Your task to perform on an android device: see sites visited before in the chrome app Image 0: 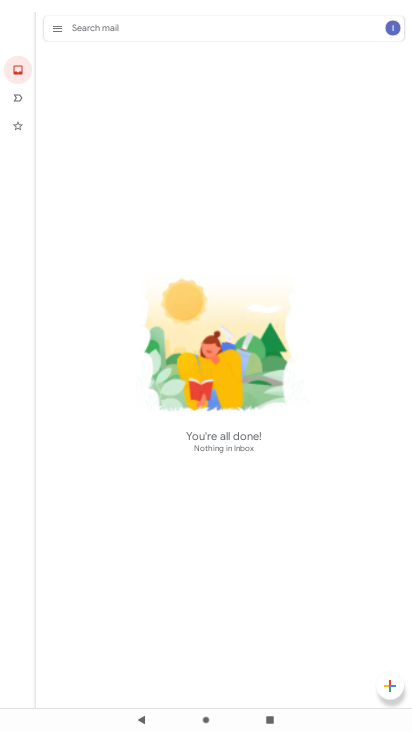
Step 0: press home button
Your task to perform on an android device: see sites visited before in the chrome app Image 1: 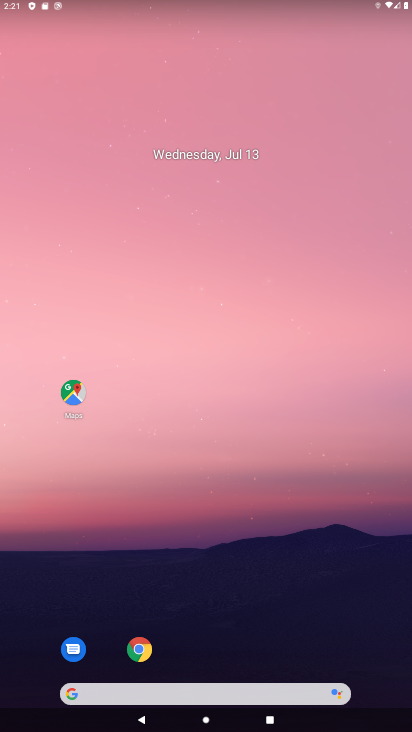
Step 1: click (136, 650)
Your task to perform on an android device: see sites visited before in the chrome app Image 2: 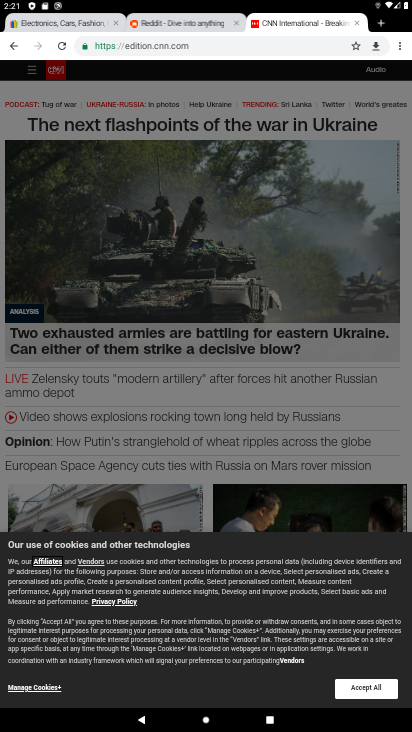
Step 2: click (402, 44)
Your task to perform on an android device: see sites visited before in the chrome app Image 3: 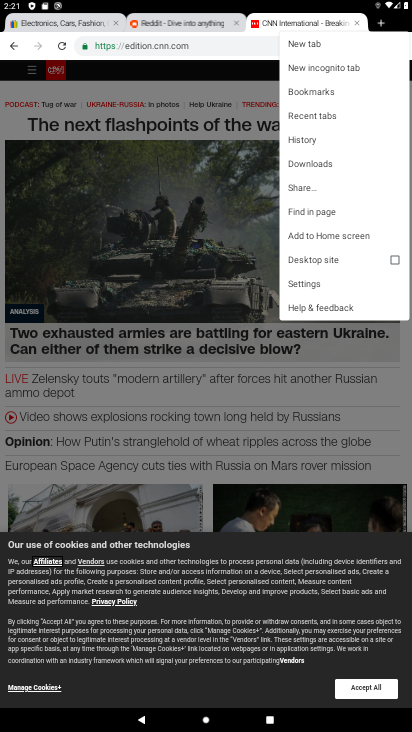
Step 3: click (308, 133)
Your task to perform on an android device: see sites visited before in the chrome app Image 4: 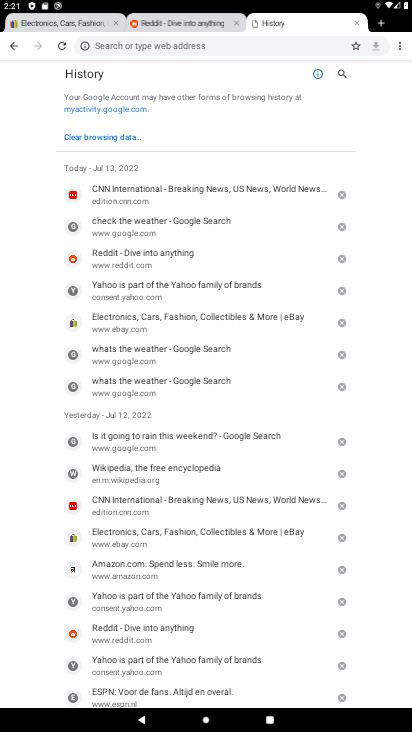
Step 4: task complete